Your task to perform on an android device: Go to internet settings Image 0: 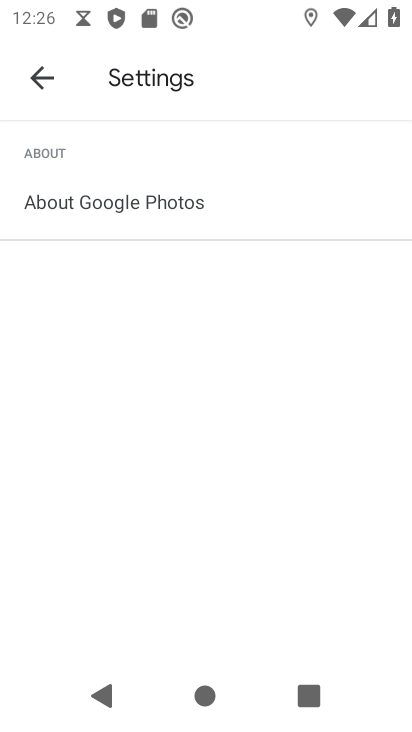
Step 0: press back button
Your task to perform on an android device: Go to internet settings Image 1: 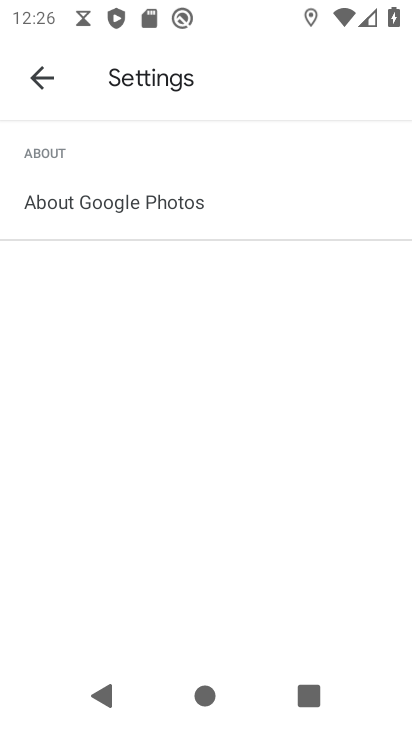
Step 1: press back button
Your task to perform on an android device: Go to internet settings Image 2: 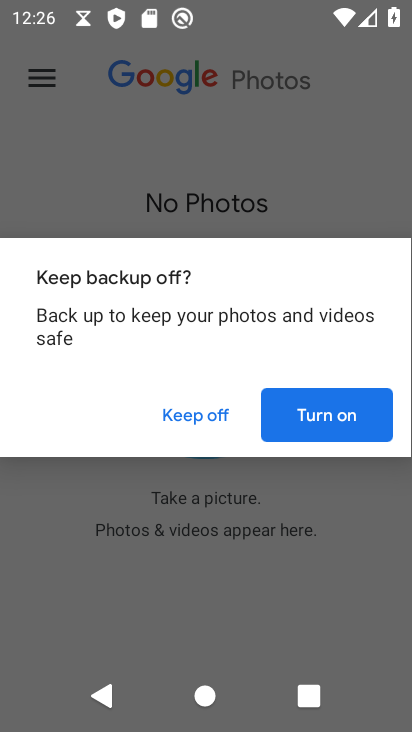
Step 2: press home button
Your task to perform on an android device: Go to internet settings Image 3: 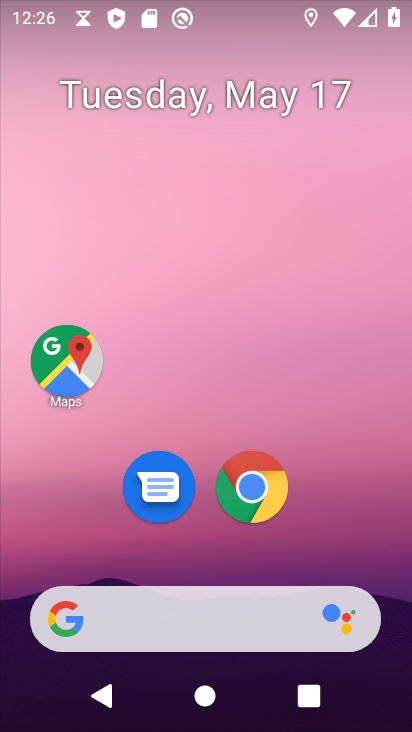
Step 3: drag from (358, 530) to (299, 53)
Your task to perform on an android device: Go to internet settings Image 4: 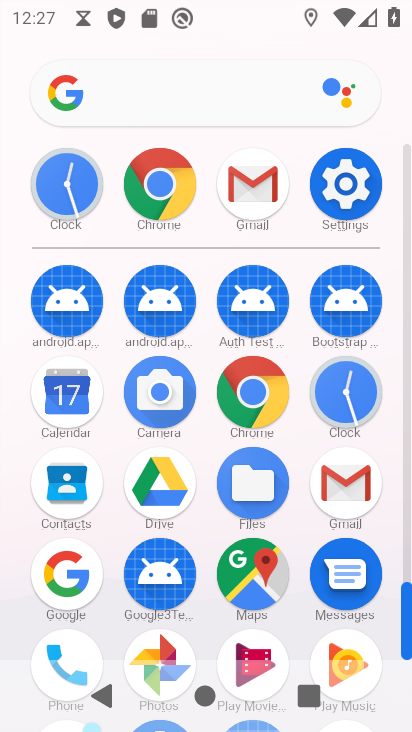
Step 4: drag from (5, 585) to (25, 251)
Your task to perform on an android device: Go to internet settings Image 5: 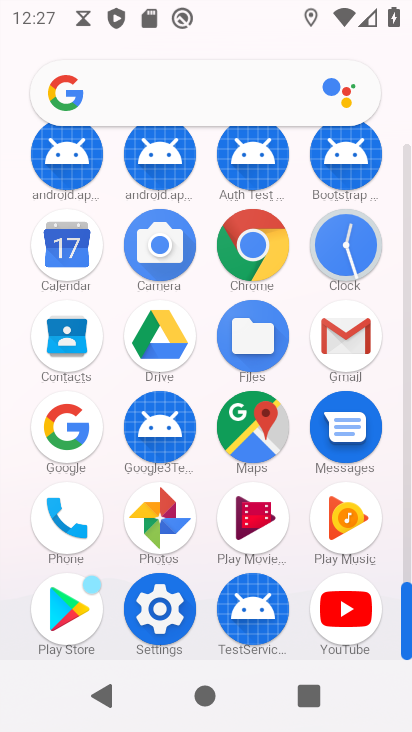
Step 5: click (163, 607)
Your task to perform on an android device: Go to internet settings Image 6: 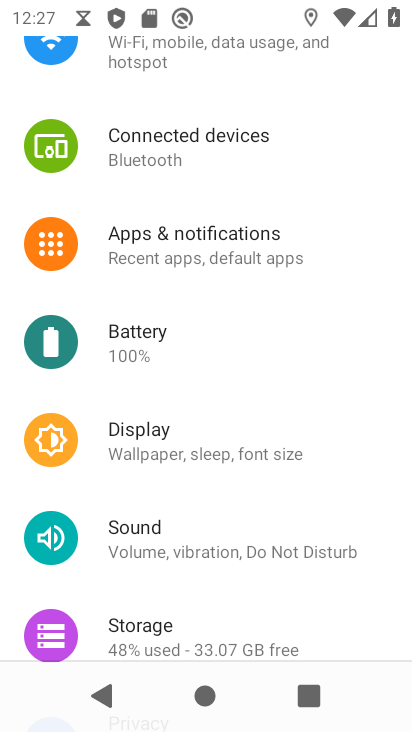
Step 6: drag from (252, 255) to (249, 578)
Your task to perform on an android device: Go to internet settings Image 7: 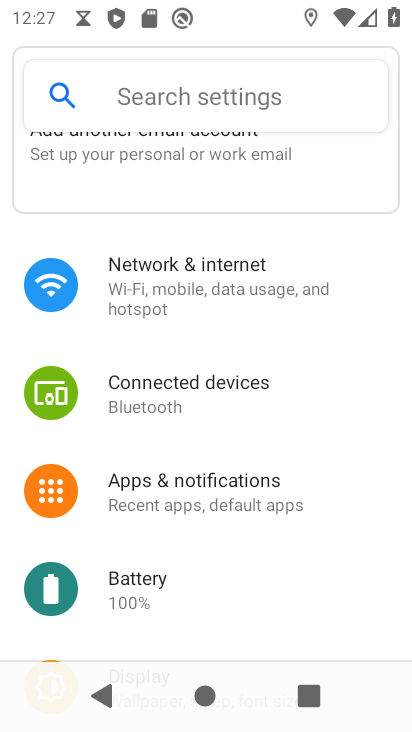
Step 7: click (276, 271)
Your task to perform on an android device: Go to internet settings Image 8: 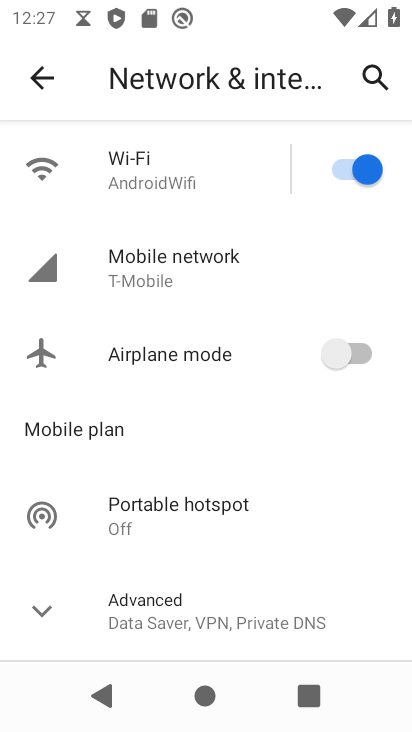
Step 8: click (35, 604)
Your task to perform on an android device: Go to internet settings Image 9: 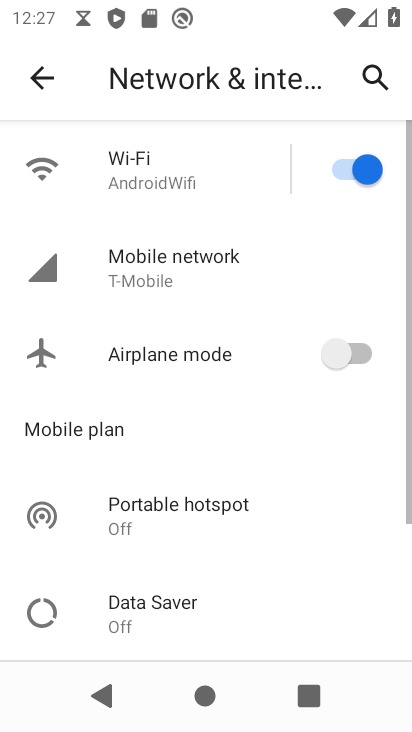
Step 9: task complete